Your task to perform on an android device: toggle airplane mode Image 0: 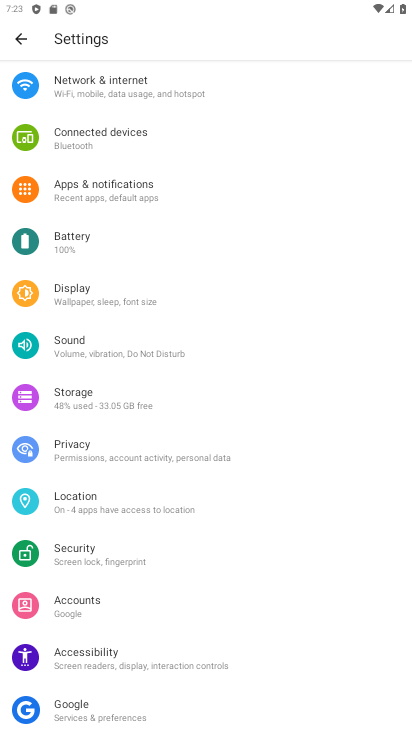
Step 0: press home button
Your task to perform on an android device: toggle airplane mode Image 1: 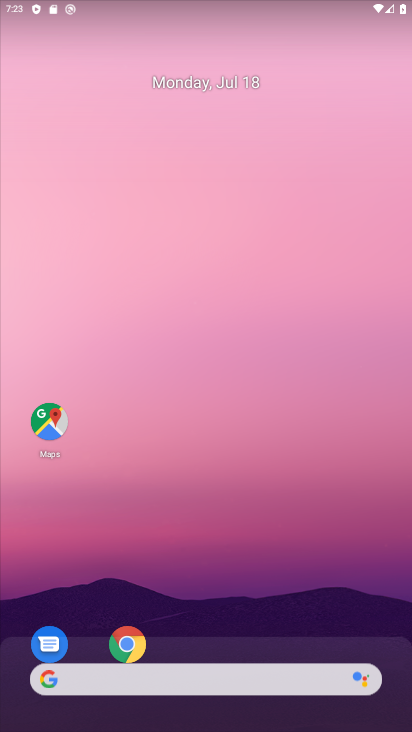
Step 1: drag from (342, 587) to (392, 163)
Your task to perform on an android device: toggle airplane mode Image 2: 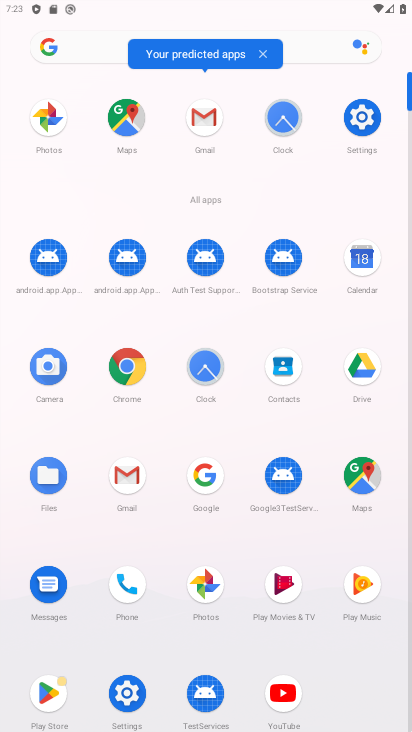
Step 2: click (357, 122)
Your task to perform on an android device: toggle airplane mode Image 3: 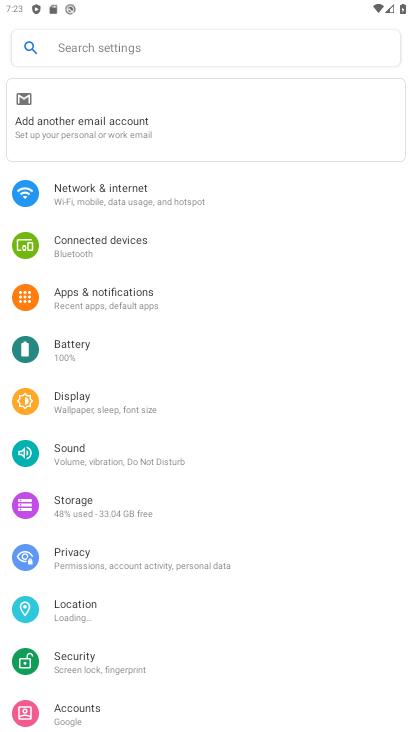
Step 3: drag from (296, 515) to (307, 459)
Your task to perform on an android device: toggle airplane mode Image 4: 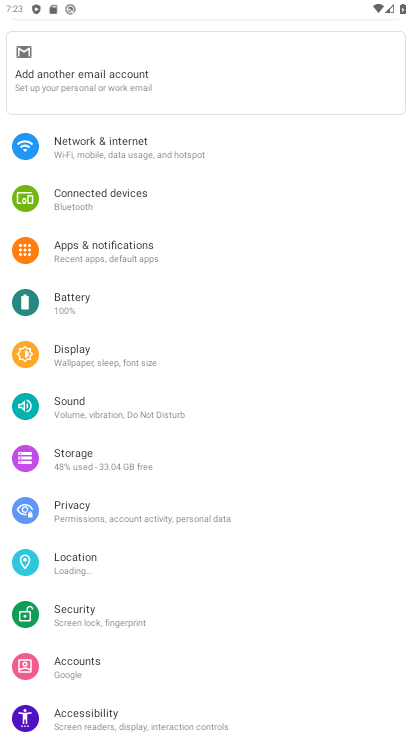
Step 4: drag from (318, 524) to (321, 475)
Your task to perform on an android device: toggle airplane mode Image 5: 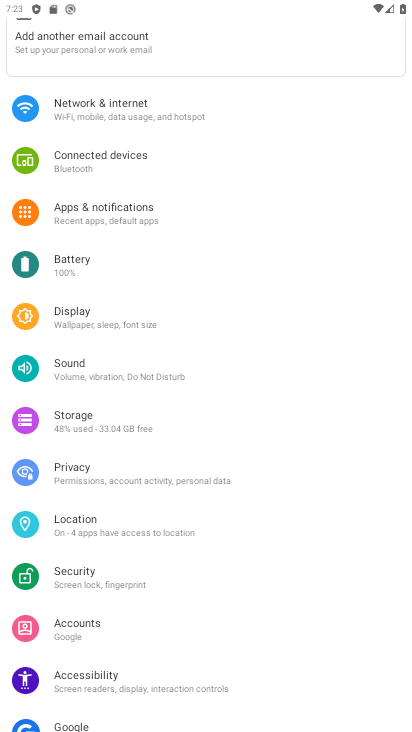
Step 5: click (319, 489)
Your task to perform on an android device: toggle airplane mode Image 6: 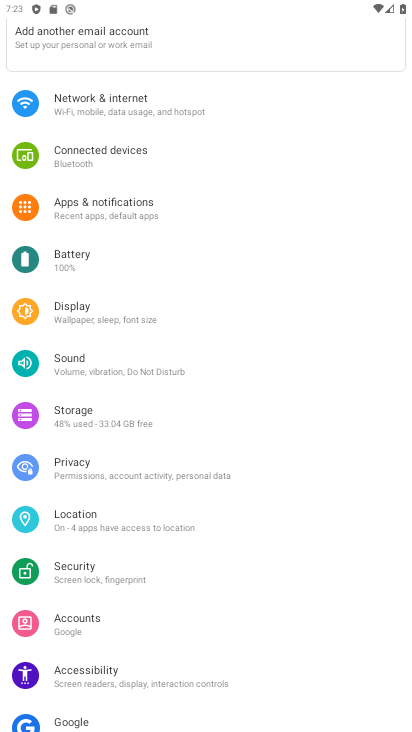
Step 6: drag from (320, 574) to (338, 472)
Your task to perform on an android device: toggle airplane mode Image 7: 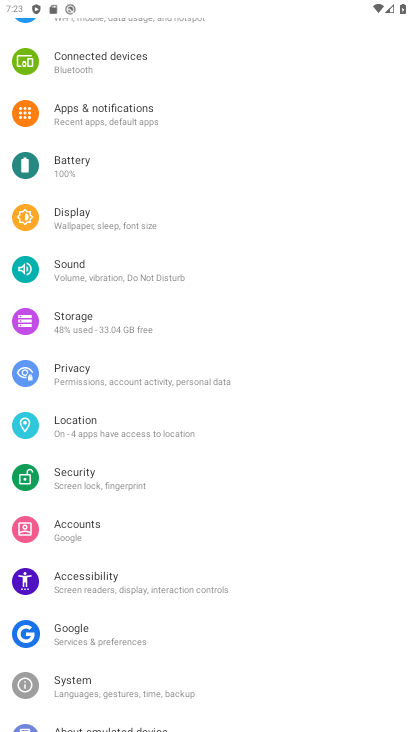
Step 7: drag from (339, 583) to (344, 526)
Your task to perform on an android device: toggle airplane mode Image 8: 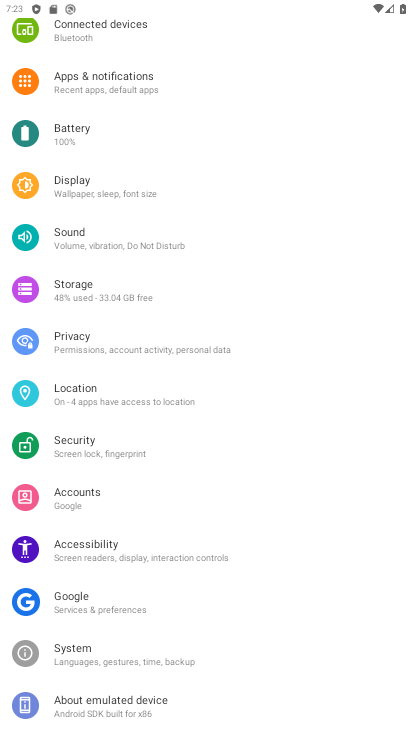
Step 8: drag from (324, 399) to (326, 482)
Your task to perform on an android device: toggle airplane mode Image 9: 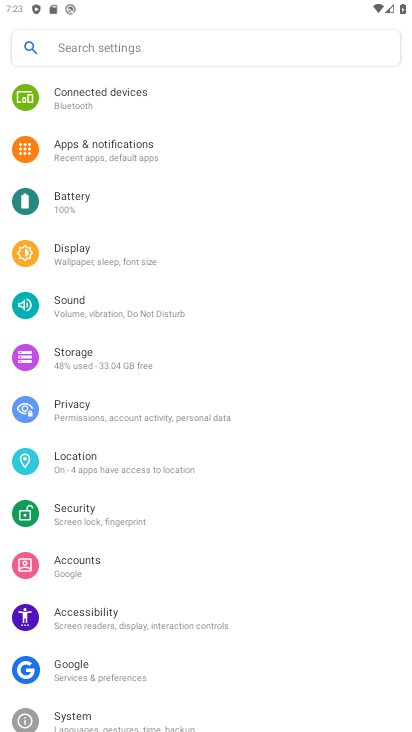
Step 9: drag from (322, 375) to (314, 442)
Your task to perform on an android device: toggle airplane mode Image 10: 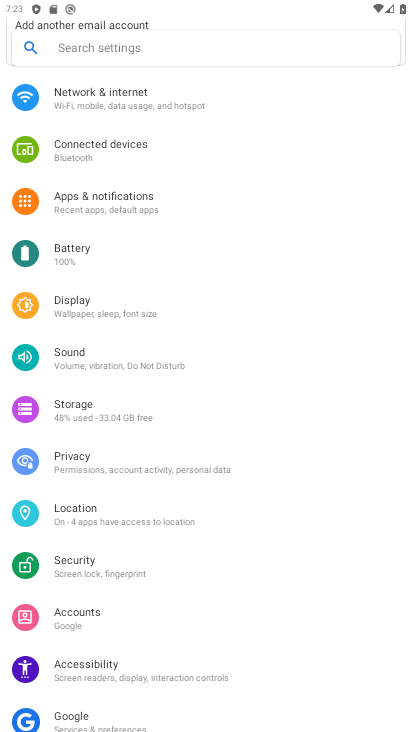
Step 10: drag from (321, 351) to (331, 456)
Your task to perform on an android device: toggle airplane mode Image 11: 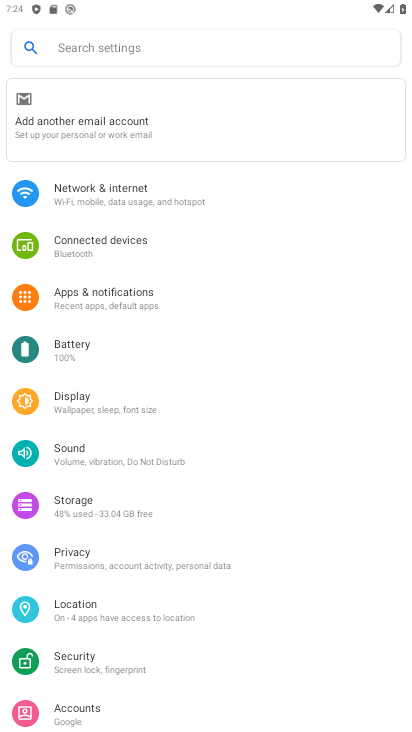
Step 11: click (229, 203)
Your task to perform on an android device: toggle airplane mode Image 12: 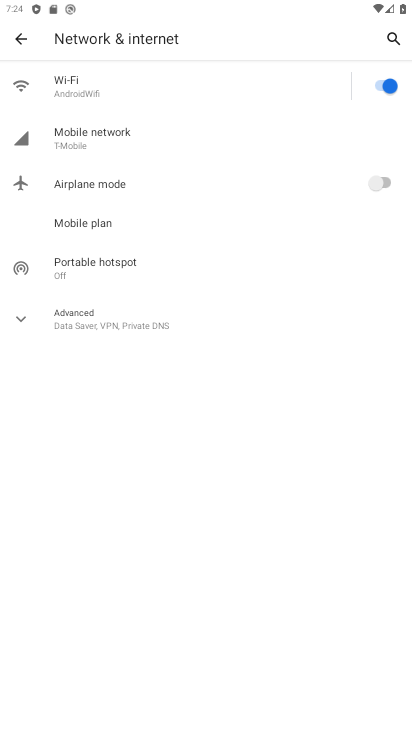
Step 12: click (372, 193)
Your task to perform on an android device: toggle airplane mode Image 13: 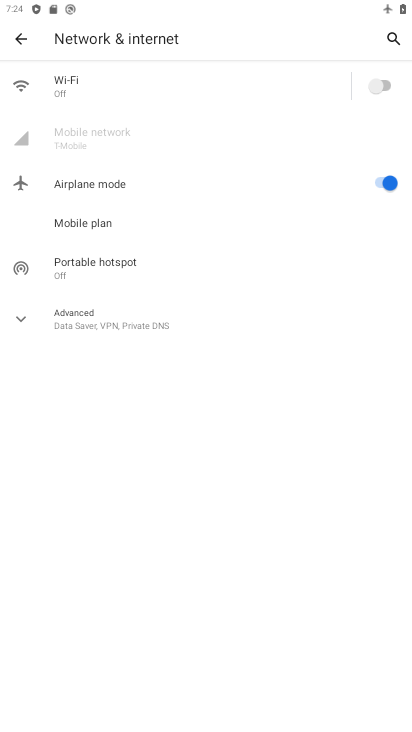
Step 13: task complete